Your task to perform on an android device: Go to Wikipedia Image 0: 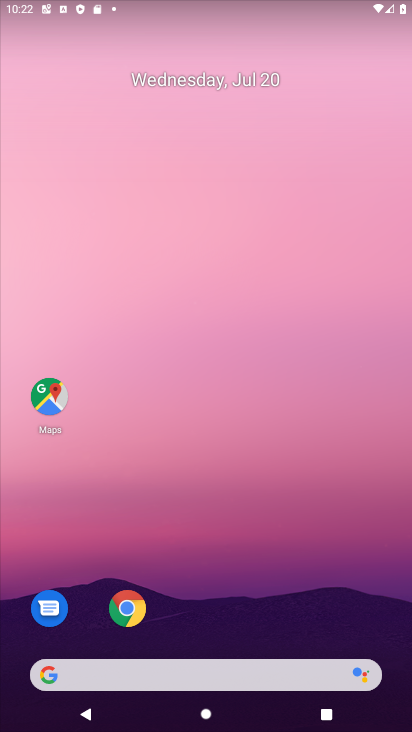
Step 0: drag from (233, 549) to (295, 50)
Your task to perform on an android device: Go to Wikipedia Image 1: 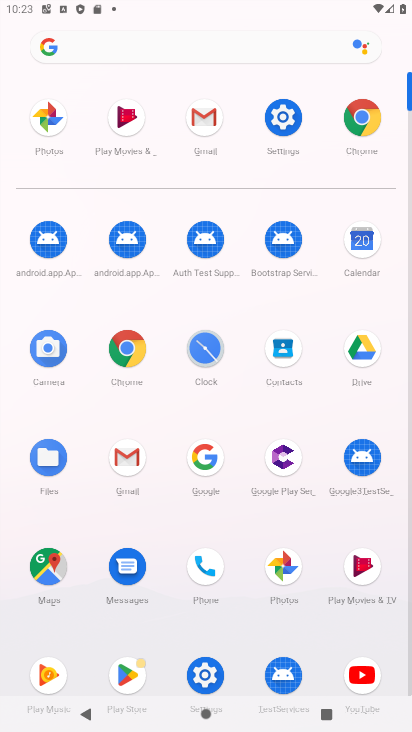
Step 1: click (349, 128)
Your task to perform on an android device: Go to Wikipedia Image 2: 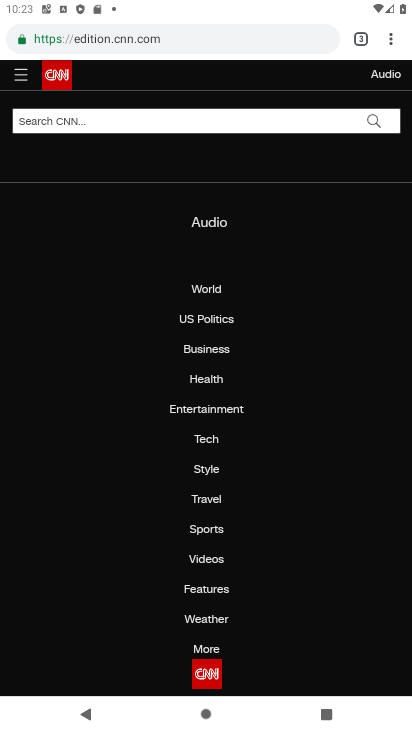
Step 2: click (359, 47)
Your task to perform on an android device: Go to Wikipedia Image 3: 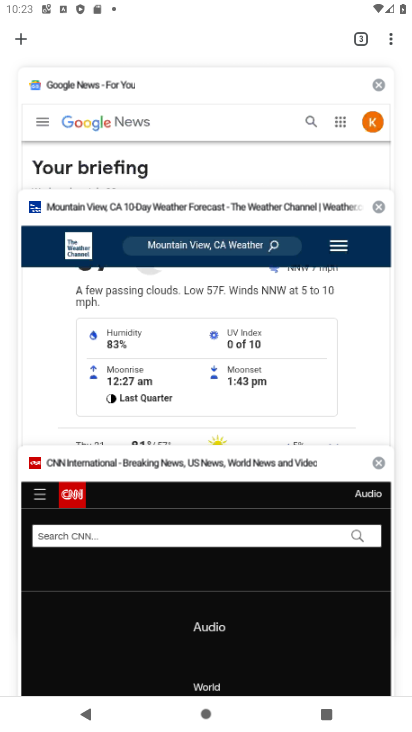
Step 3: click (26, 40)
Your task to perform on an android device: Go to Wikipedia Image 4: 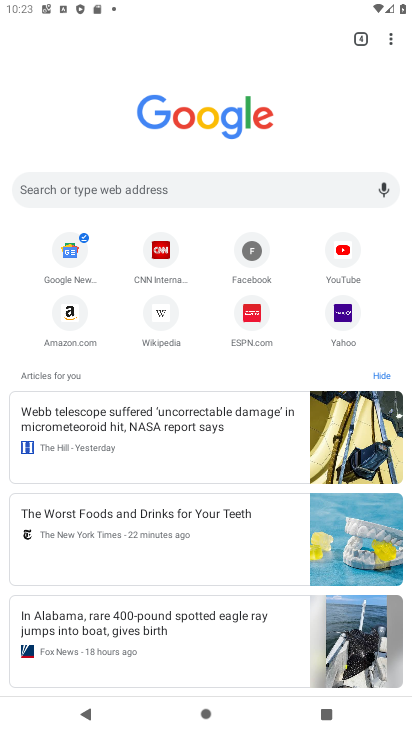
Step 4: click (166, 333)
Your task to perform on an android device: Go to Wikipedia Image 5: 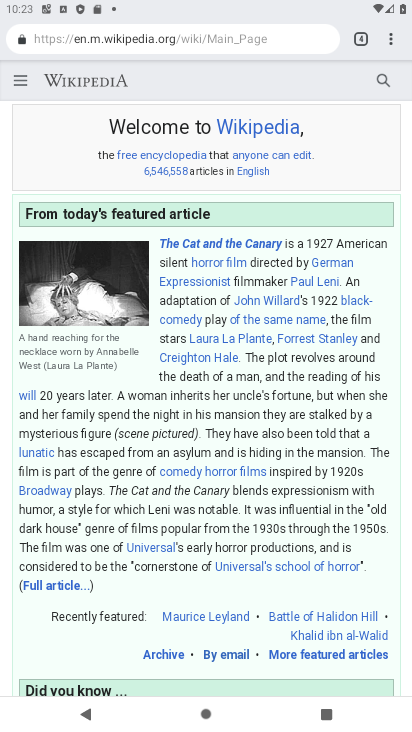
Step 5: task complete